Your task to perform on an android device: check data usage Image 0: 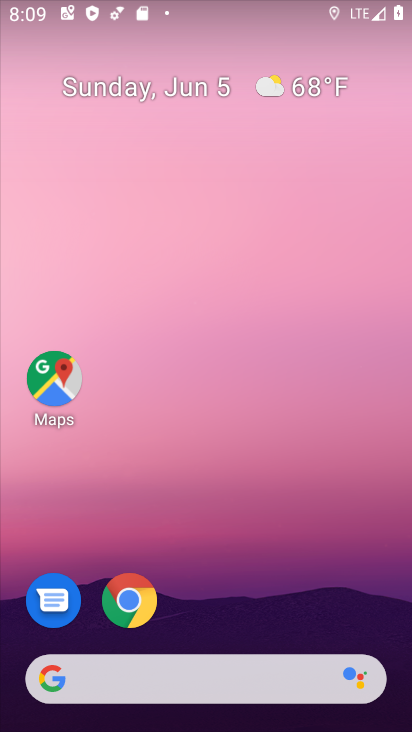
Step 0: drag from (233, 602) to (231, 10)
Your task to perform on an android device: check data usage Image 1: 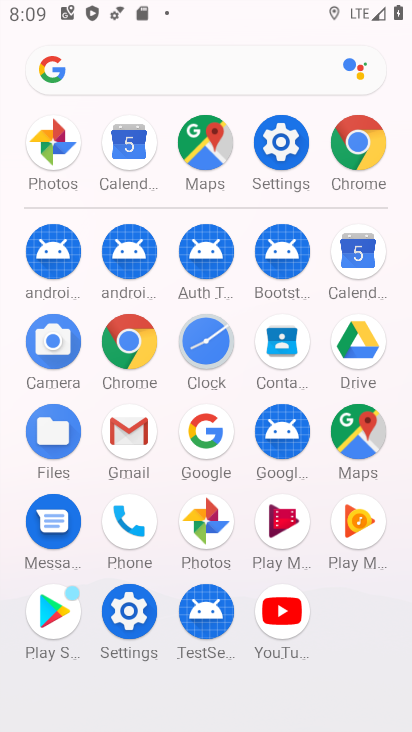
Step 1: click (275, 141)
Your task to perform on an android device: check data usage Image 2: 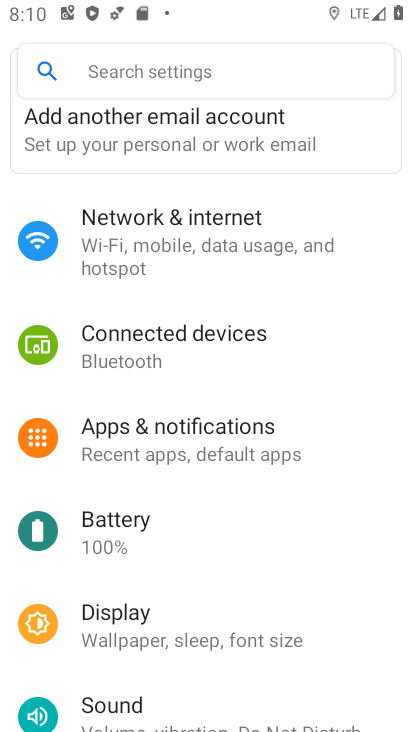
Step 2: click (252, 232)
Your task to perform on an android device: check data usage Image 3: 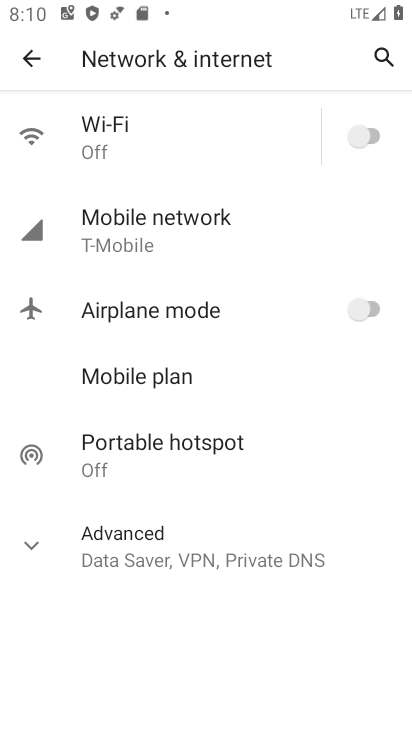
Step 3: click (229, 233)
Your task to perform on an android device: check data usage Image 4: 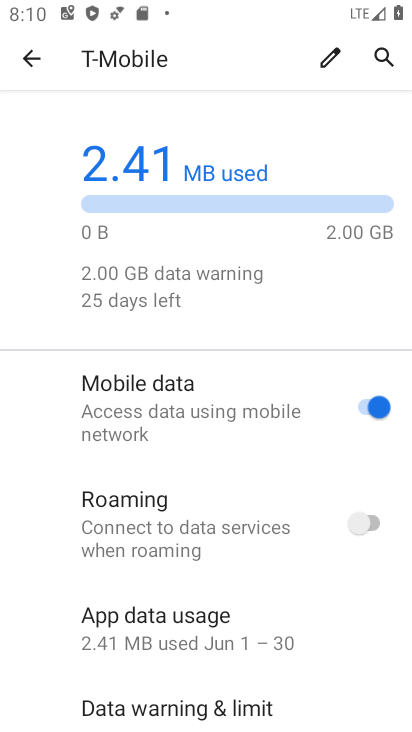
Step 4: task complete